Your task to perform on an android device: Open location settings Image 0: 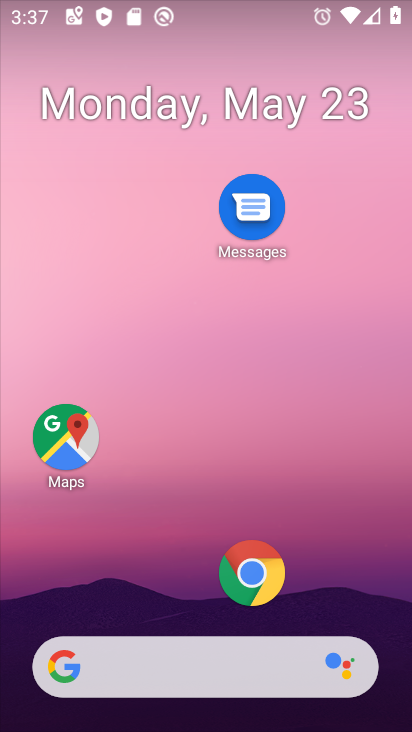
Step 0: drag from (278, 658) to (309, 116)
Your task to perform on an android device: Open location settings Image 1: 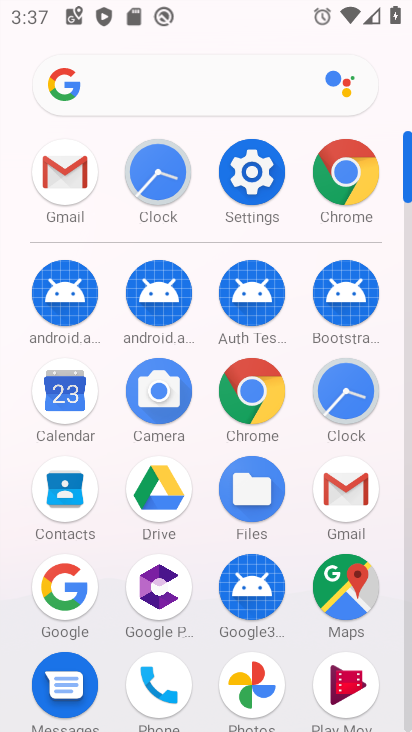
Step 1: click (248, 197)
Your task to perform on an android device: Open location settings Image 2: 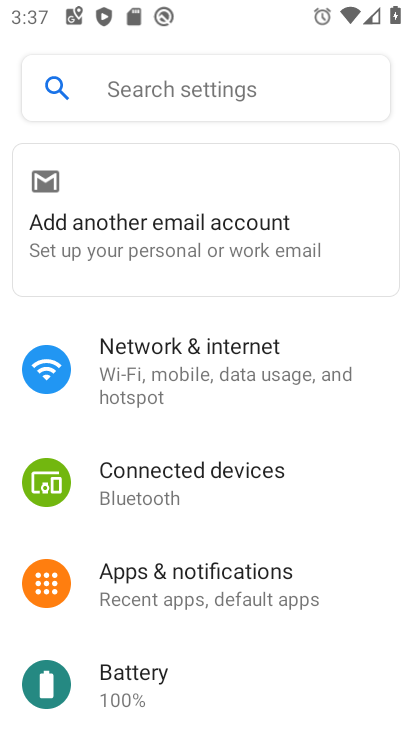
Step 2: drag from (253, 705) to (259, 377)
Your task to perform on an android device: Open location settings Image 3: 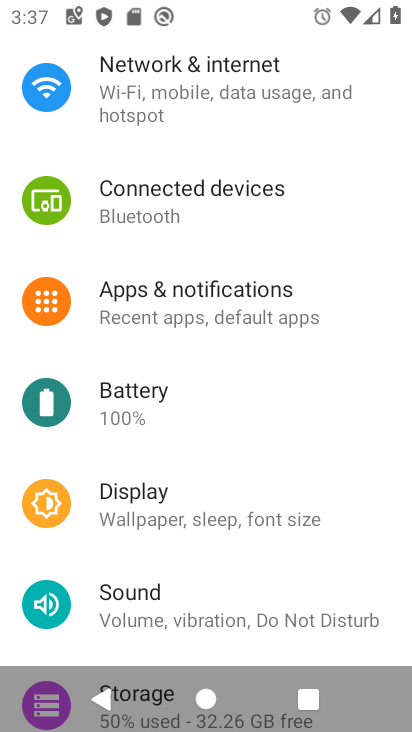
Step 3: drag from (290, 564) to (272, 44)
Your task to perform on an android device: Open location settings Image 4: 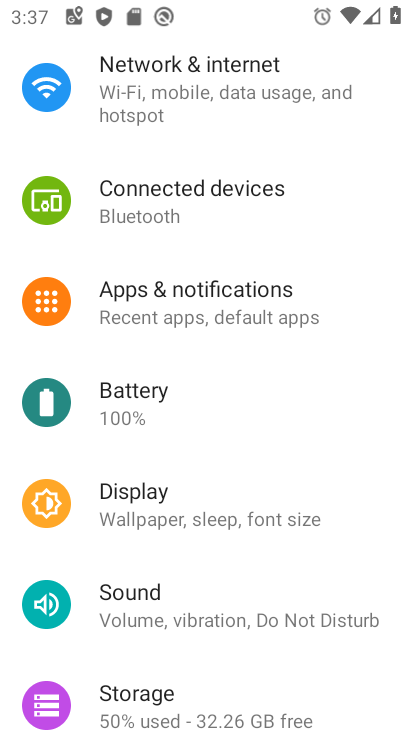
Step 4: drag from (231, 621) to (236, 110)
Your task to perform on an android device: Open location settings Image 5: 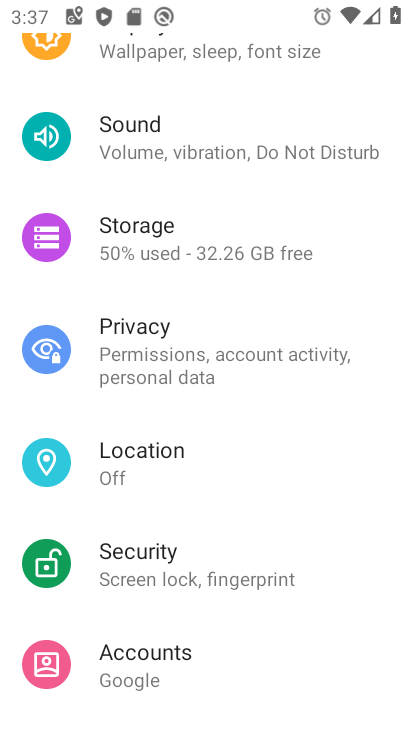
Step 5: click (196, 450)
Your task to perform on an android device: Open location settings Image 6: 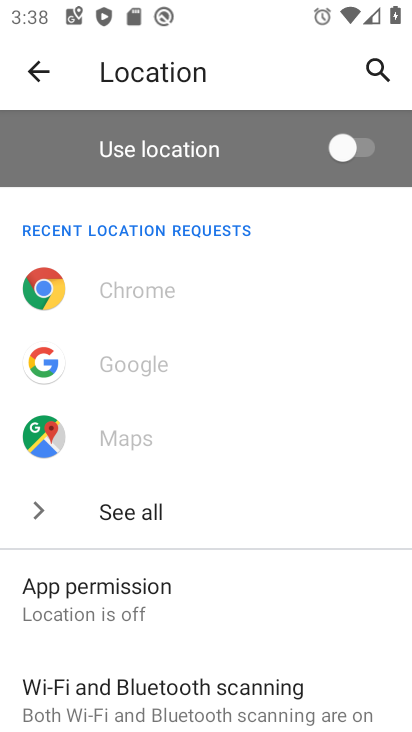
Step 6: task complete